Your task to perform on an android device: check storage Image 0: 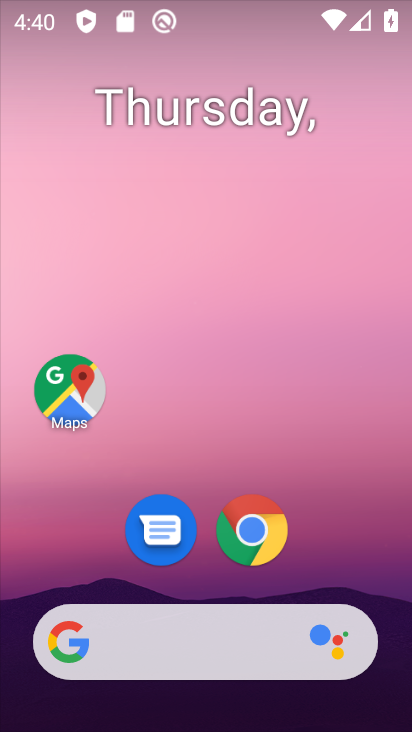
Step 0: drag from (269, 659) to (299, 22)
Your task to perform on an android device: check storage Image 1: 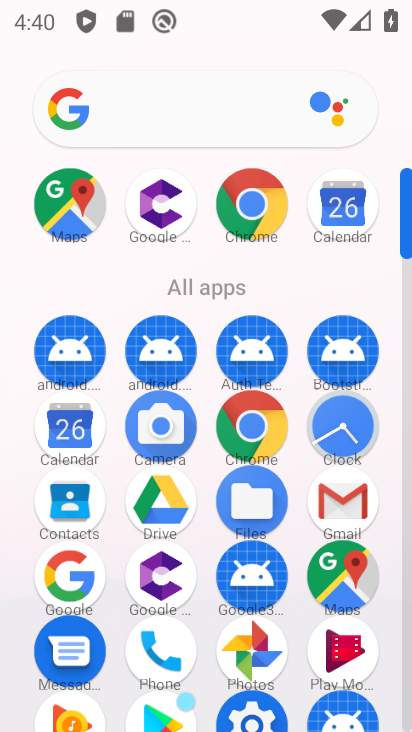
Step 1: drag from (209, 551) to (233, 122)
Your task to perform on an android device: check storage Image 2: 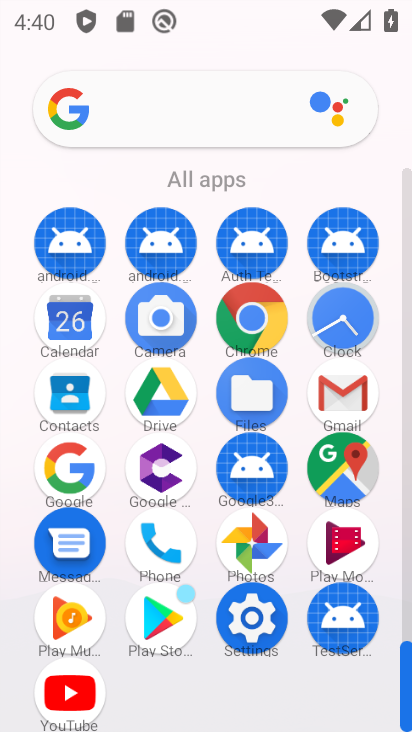
Step 2: click (261, 596)
Your task to perform on an android device: check storage Image 3: 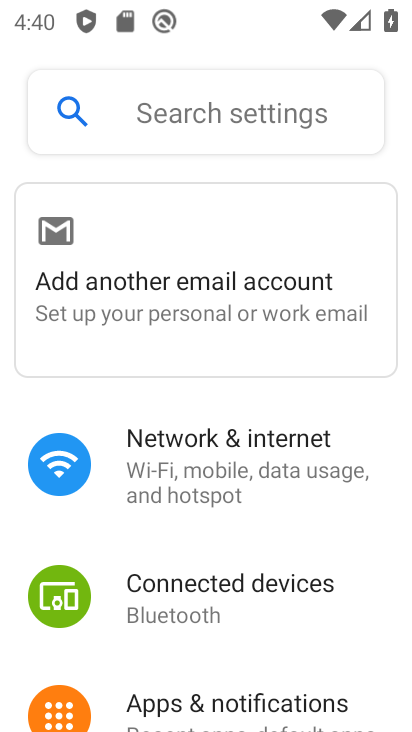
Step 3: drag from (278, 643) to (321, 58)
Your task to perform on an android device: check storage Image 4: 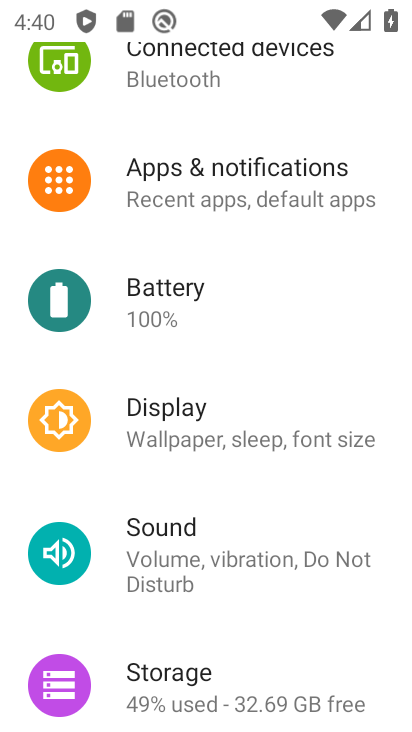
Step 4: click (217, 686)
Your task to perform on an android device: check storage Image 5: 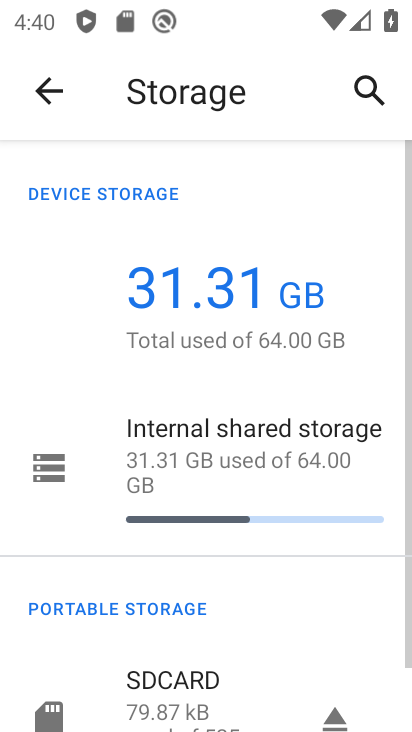
Step 5: task complete